Your task to perform on an android device: What's the weather? Image 0: 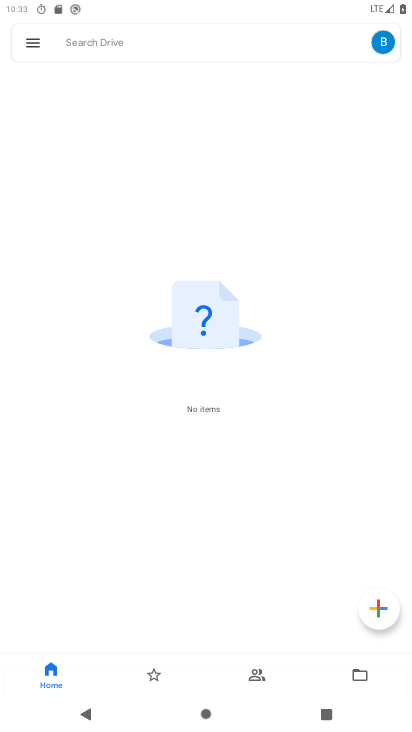
Step 0: press home button
Your task to perform on an android device: What's the weather? Image 1: 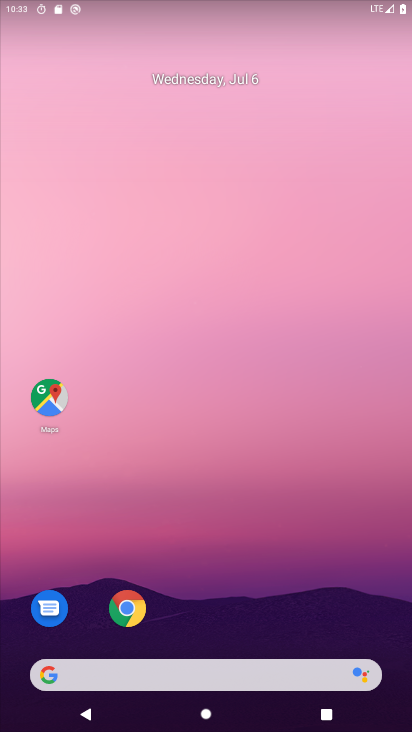
Step 1: click (166, 670)
Your task to perform on an android device: What's the weather? Image 2: 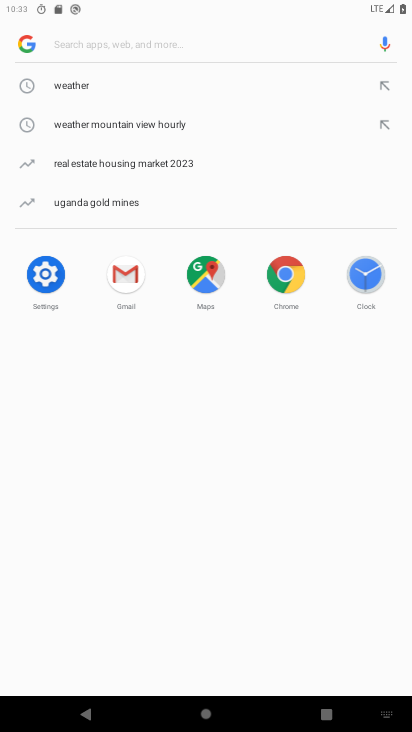
Step 2: click (80, 82)
Your task to perform on an android device: What's the weather? Image 3: 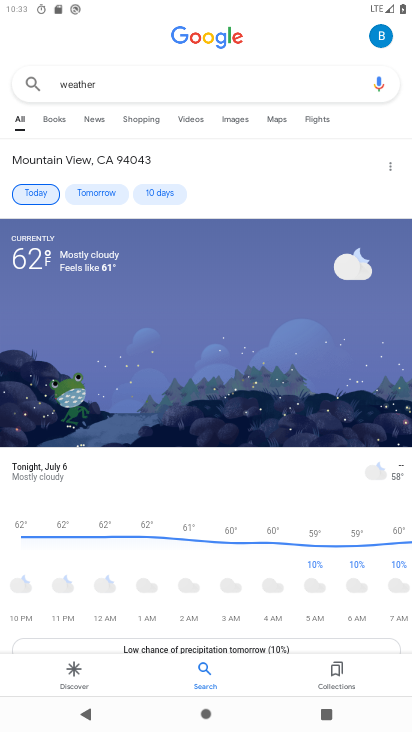
Step 3: task complete